Your task to perform on an android device: Open accessibility settings Image 0: 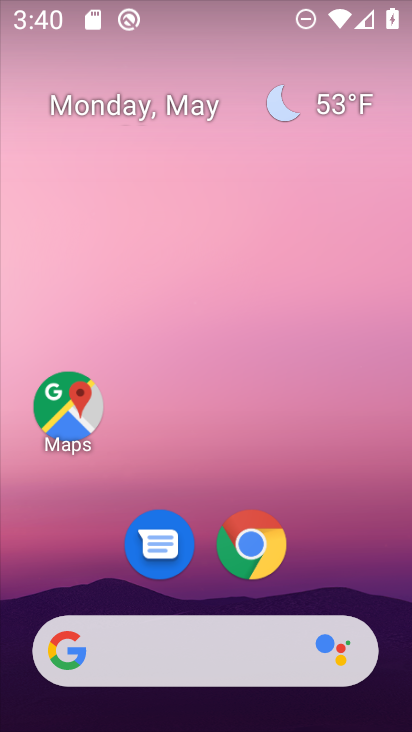
Step 0: drag from (100, 726) to (349, 120)
Your task to perform on an android device: Open accessibility settings Image 1: 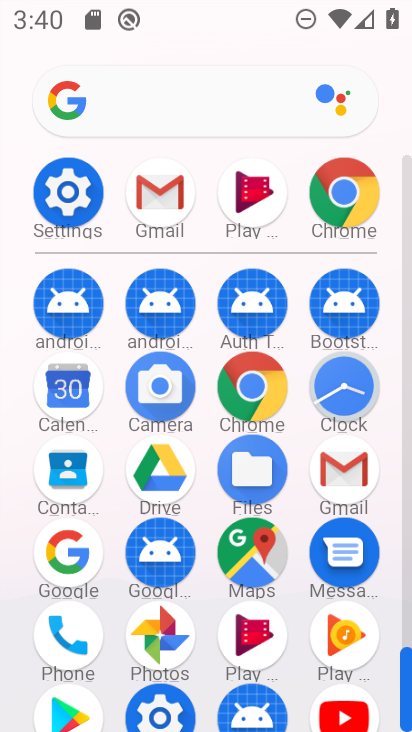
Step 1: click (84, 201)
Your task to perform on an android device: Open accessibility settings Image 2: 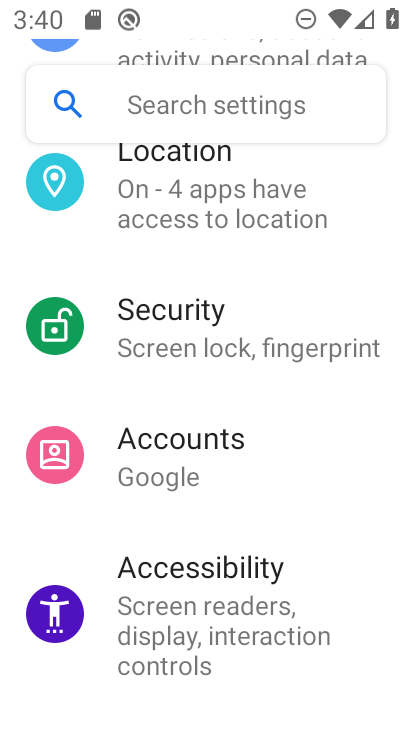
Step 2: click (240, 605)
Your task to perform on an android device: Open accessibility settings Image 3: 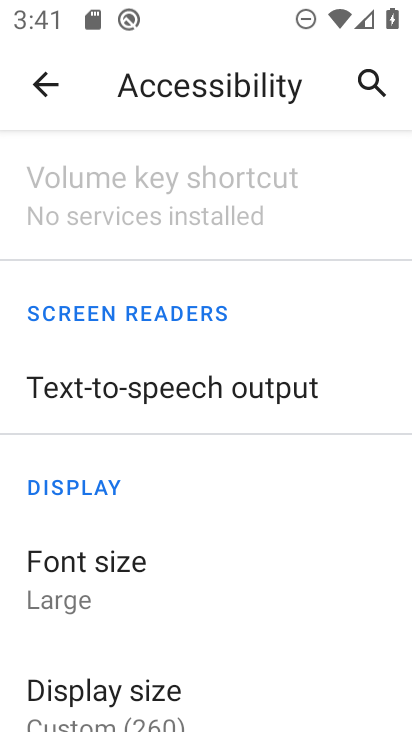
Step 3: task complete